Your task to perform on an android device: Open privacy settings Image 0: 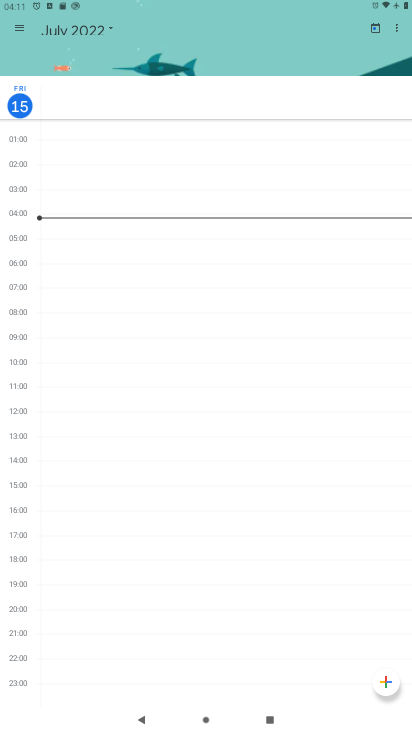
Step 0: press home button
Your task to perform on an android device: Open privacy settings Image 1: 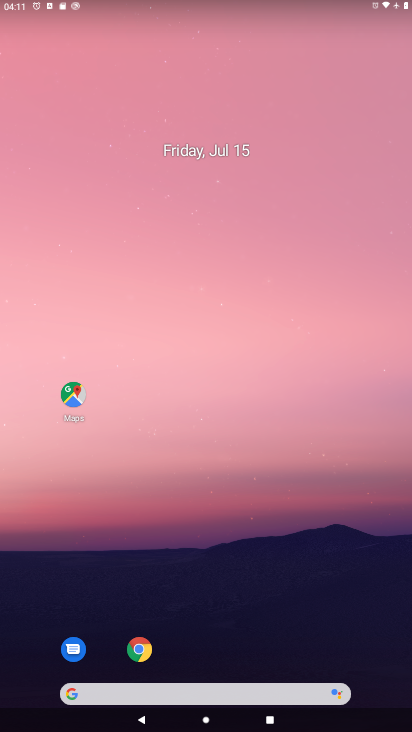
Step 1: drag from (366, 671) to (324, 69)
Your task to perform on an android device: Open privacy settings Image 2: 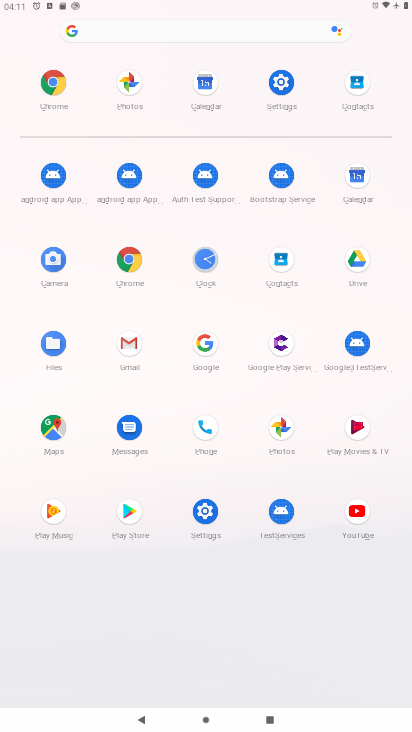
Step 2: click (204, 509)
Your task to perform on an android device: Open privacy settings Image 3: 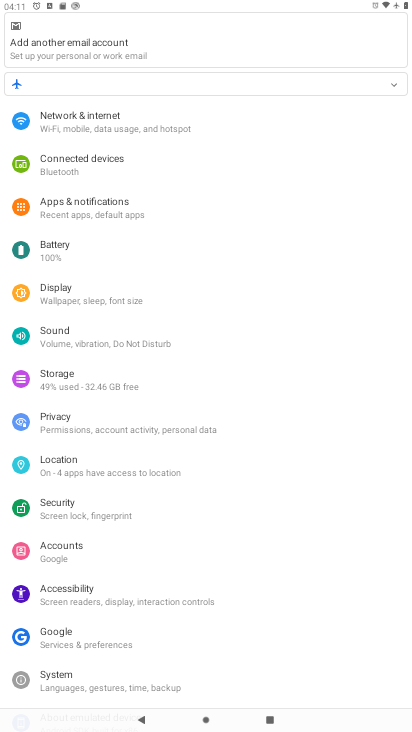
Step 3: click (68, 427)
Your task to perform on an android device: Open privacy settings Image 4: 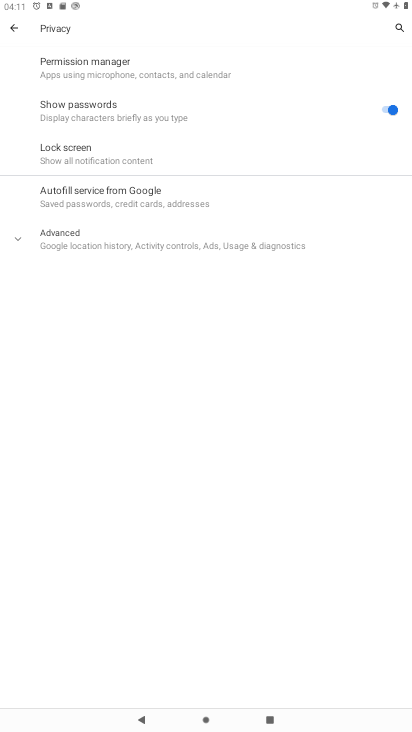
Step 4: click (17, 240)
Your task to perform on an android device: Open privacy settings Image 5: 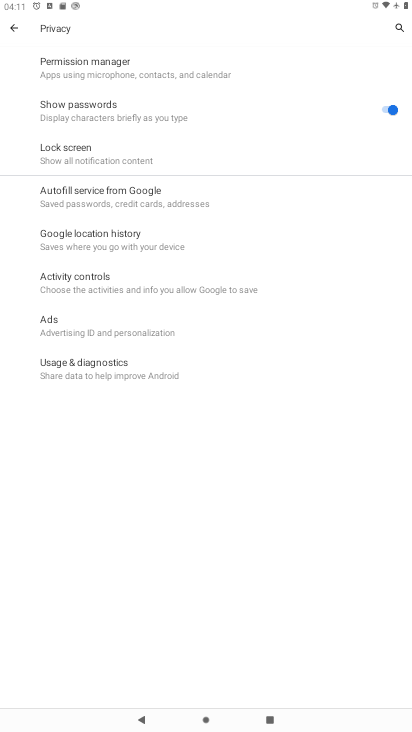
Step 5: task complete